Your task to perform on an android device: Go to notification settings Image 0: 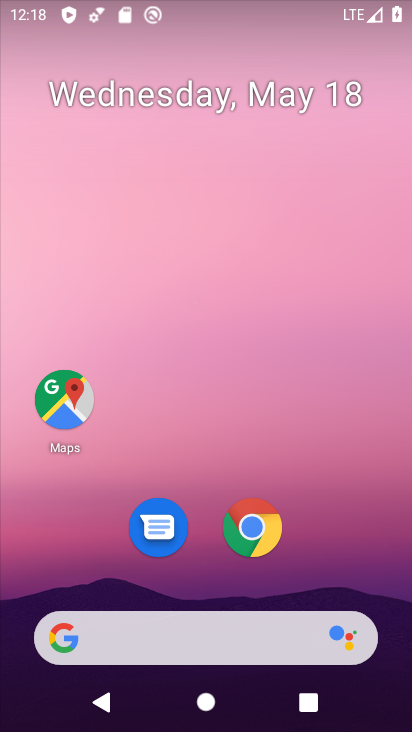
Step 0: drag from (329, 543) to (234, 23)
Your task to perform on an android device: Go to notification settings Image 1: 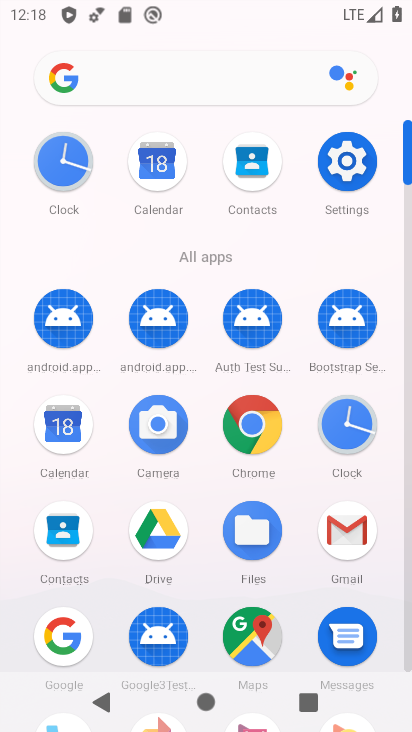
Step 1: click (356, 176)
Your task to perform on an android device: Go to notification settings Image 2: 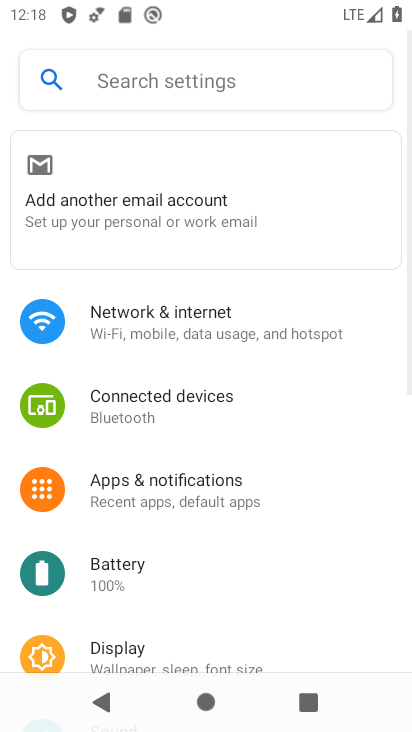
Step 2: click (216, 506)
Your task to perform on an android device: Go to notification settings Image 3: 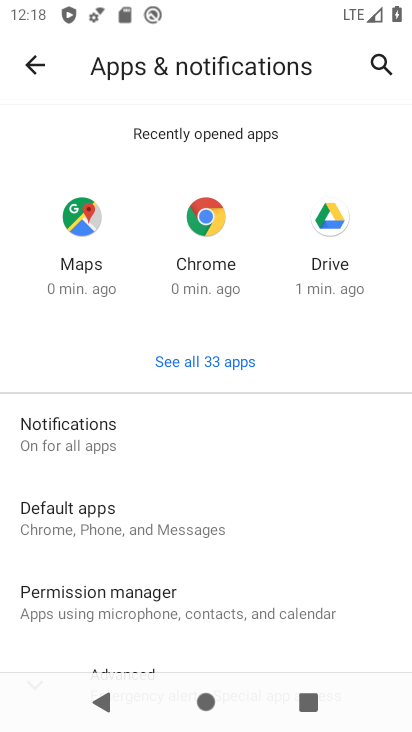
Step 3: task complete